Your task to perform on an android device: Go to CNN.com Image 0: 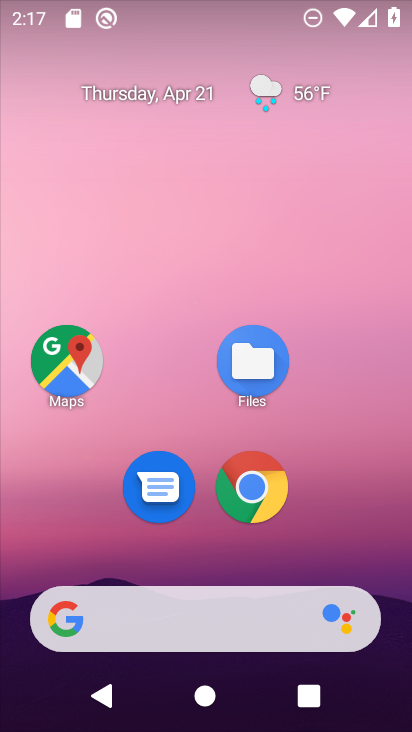
Step 0: drag from (358, 540) to (353, 127)
Your task to perform on an android device: Go to CNN.com Image 1: 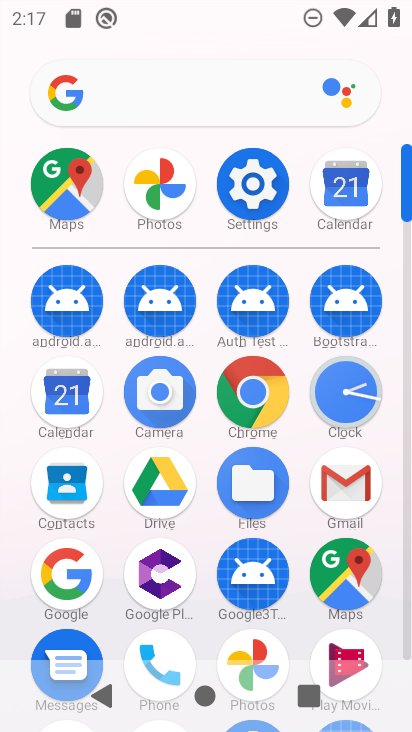
Step 1: click (267, 398)
Your task to perform on an android device: Go to CNN.com Image 2: 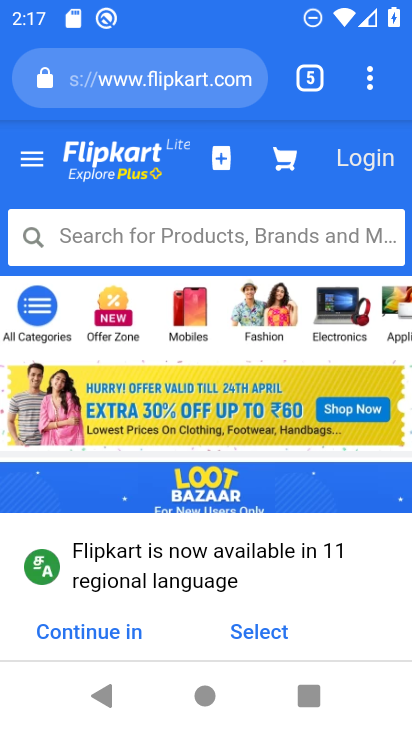
Step 2: click (302, 84)
Your task to perform on an android device: Go to CNN.com Image 3: 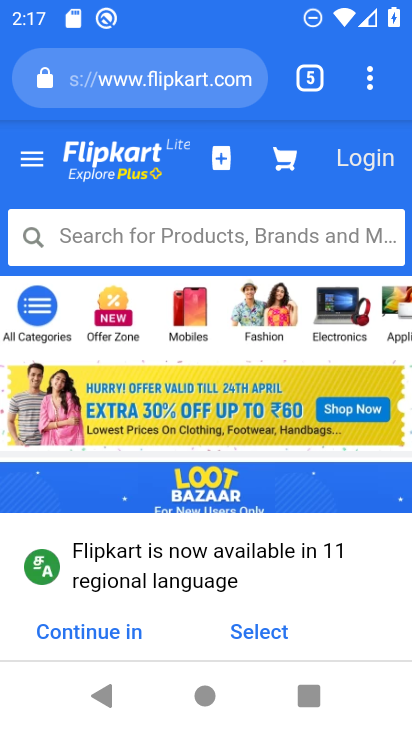
Step 3: click (307, 79)
Your task to perform on an android device: Go to CNN.com Image 4: 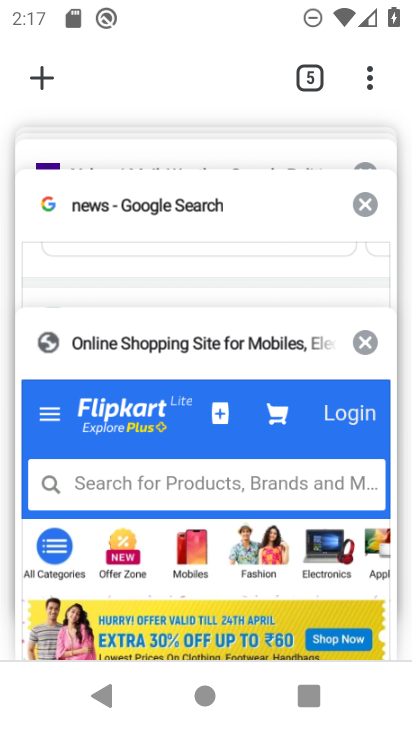
Step 4: click (44, 69)
Your task to perform on an android device: Go to CNN.com Image 5: 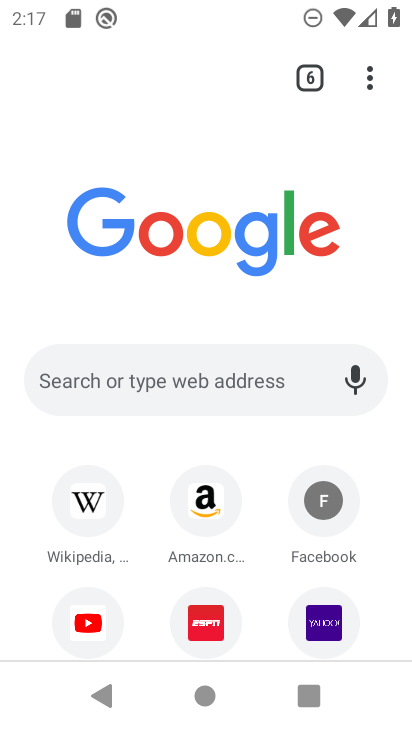
Step 5: click (205, 379)
Your task to perform on an android device: Go to CNN.com Image 6: 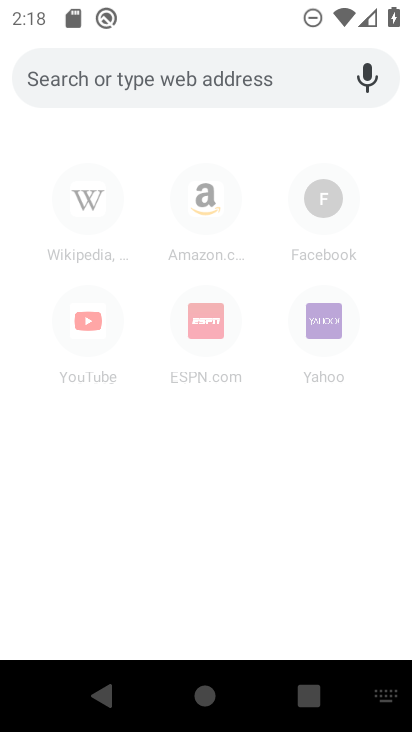
Step 6: type "cnn.com"
Your task to perform on an android device: Go to CNN.com Image 7: 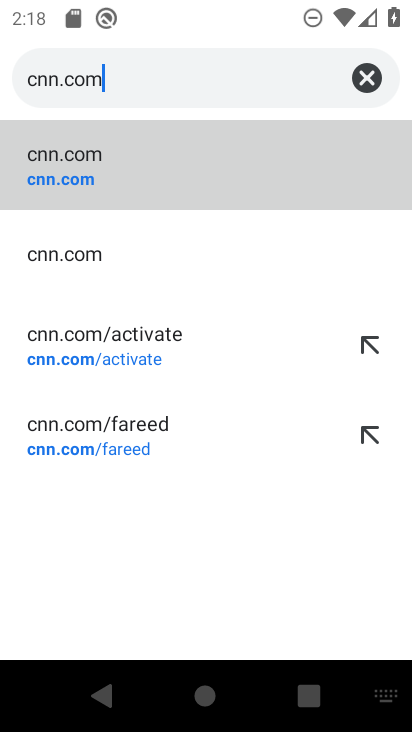
Step 7: click (85, 172)
Your task to perform on an android device: Go to CNN.com Image 8: 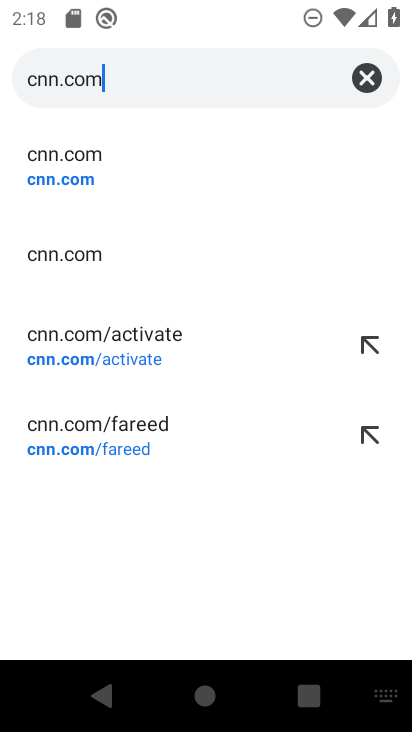
Step 8: click (78, 153)
Your task to perform on an android device: Go to CNN.com Image 9: 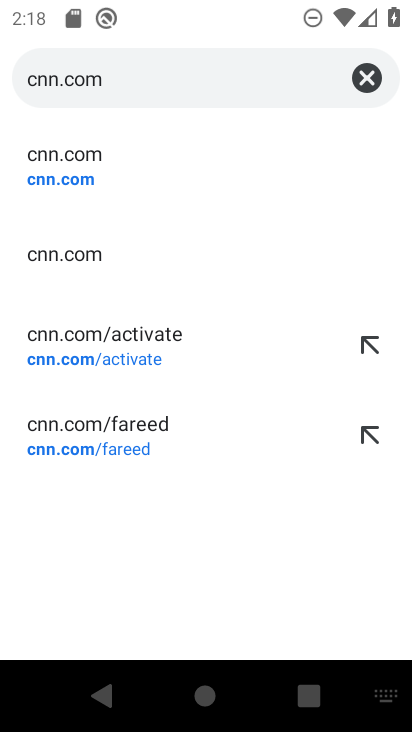
Step 9: click (66, 182)
Your task to perform on an android device: Go to CNN.com Image 10: 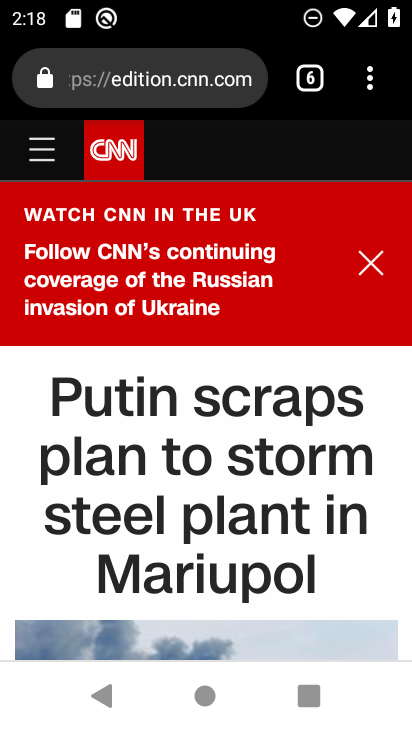
Step 10: task complete